Your task to perform on an android device: Go to accessibility settings Image 0: 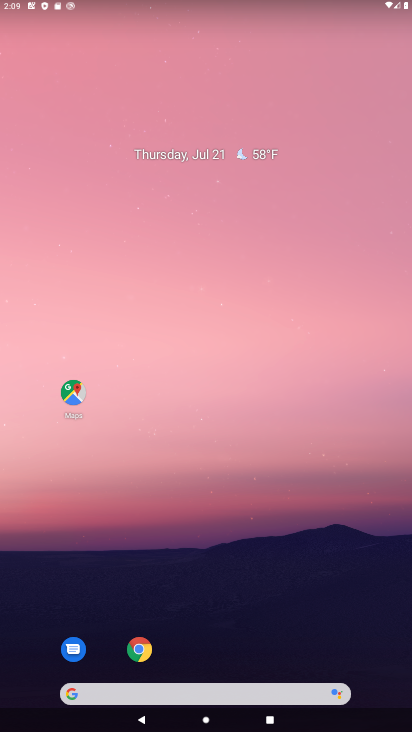
Step 0: drag from (216, 660) to (216, 194)
Your task to perform on an android device: Go to accessibility settings Image 1: 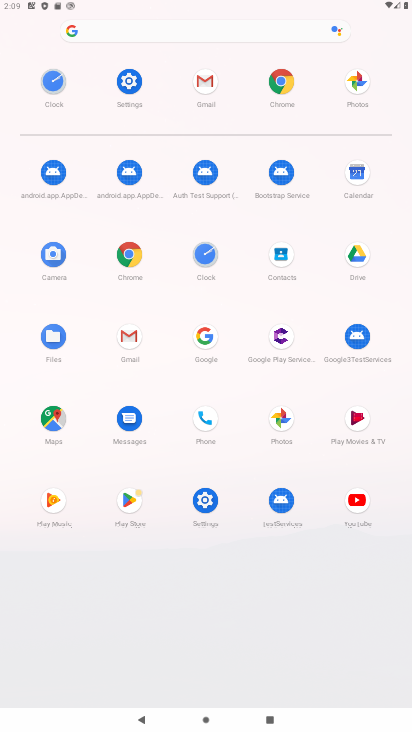
Step 1: click (136, 95)
Your task to perform on an android device: Go to accessibility settings Image 2: 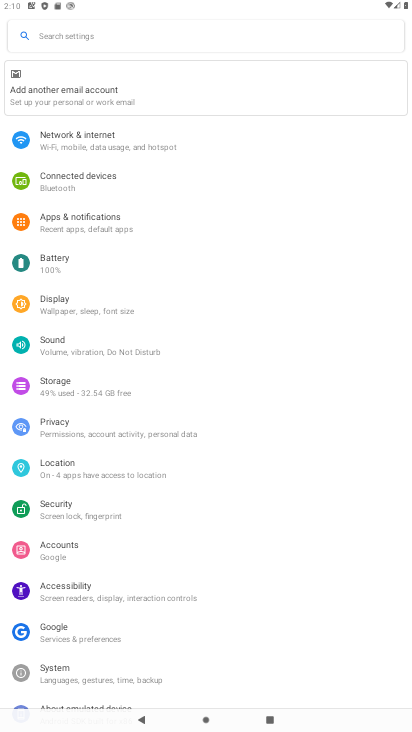
Step 2: click (97, 571)
Your task to perform on an android device: Go to accessibility settings Image 3: 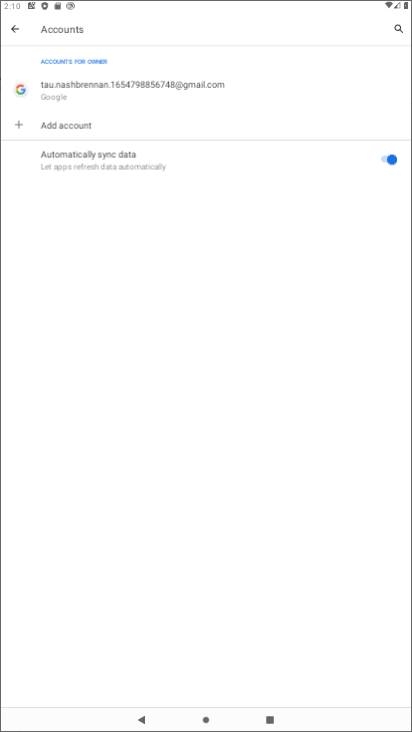
Step 3: task complete